Your task to perform on an android device: Go to eBay Image 0: 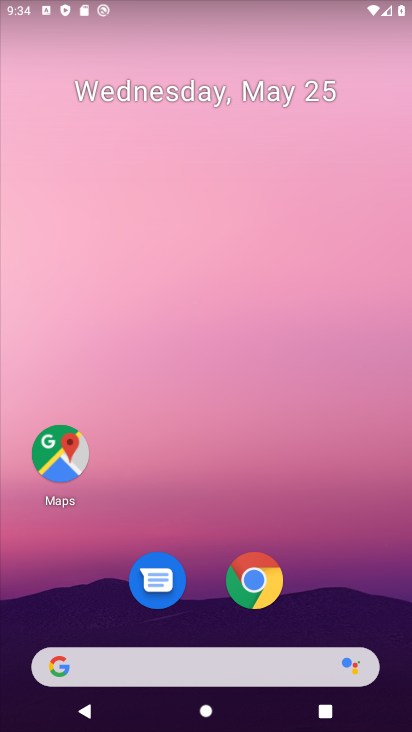
Step 0: click (259, 580)
Your task to perform on an android device: Go to eBay Image 1: 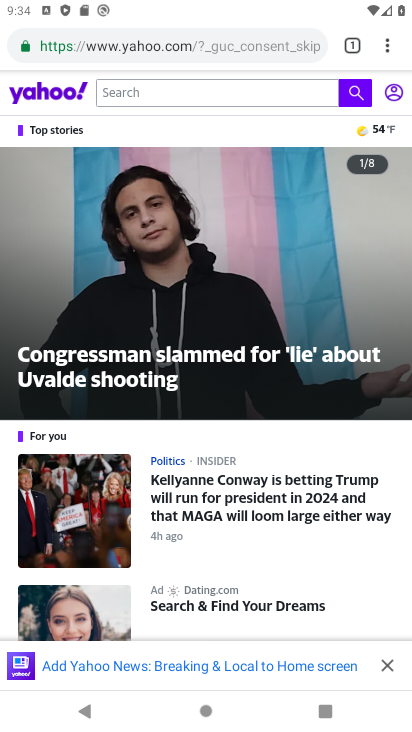
Step 1: click (343, 43)
Your task to perform on an android device: Go to eBay Image 2: 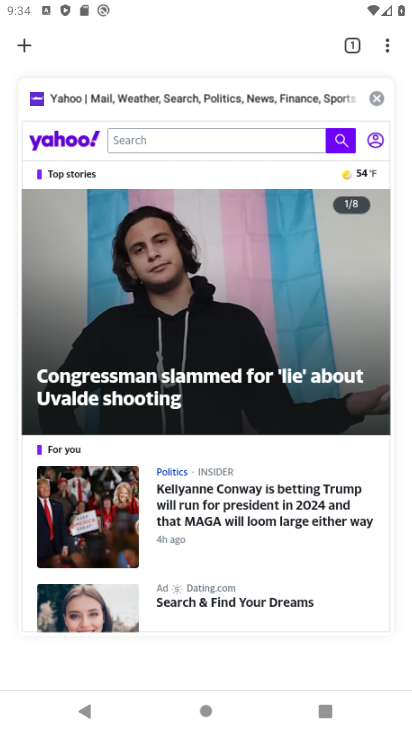
Step 2: click (377, 96)
Your task to perform on an android device: Go to eBay Image 3: 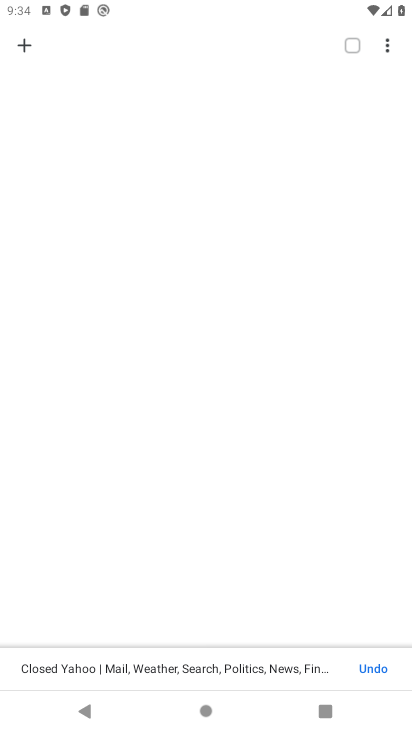
Step 3: click (25, 48)
Your task to perform on an android device: Go to eBay Image 4: 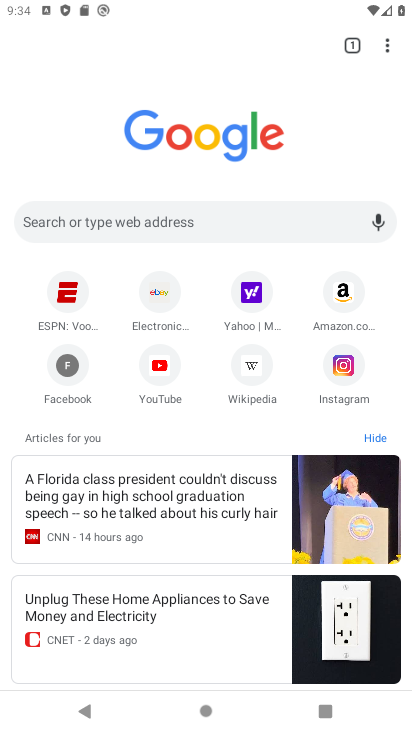
Step 4: click (149, 297)
Your task to perform on an android device: Go to eBay Image 5: 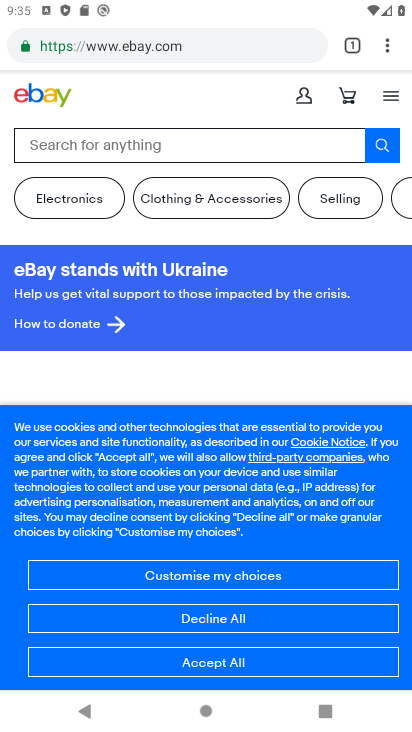
Step 5: task complete